Your task to perform on an android device: Open Youtube and go to the subscriptions tab Image 0: 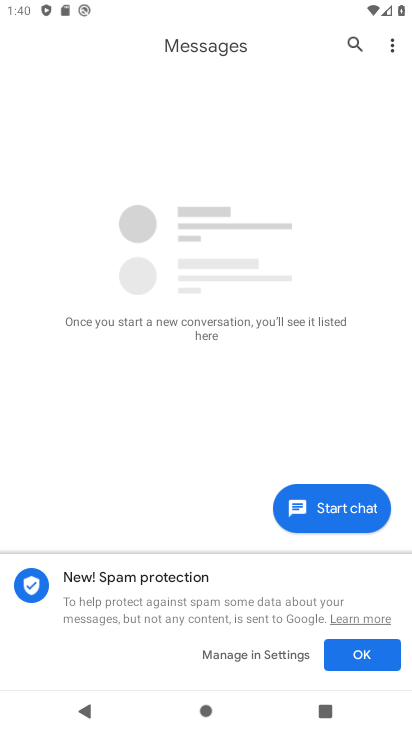
Step 0: press home button
Your task to perform on an android device: Open Youtube and go to the subscriptions tab Image 1: 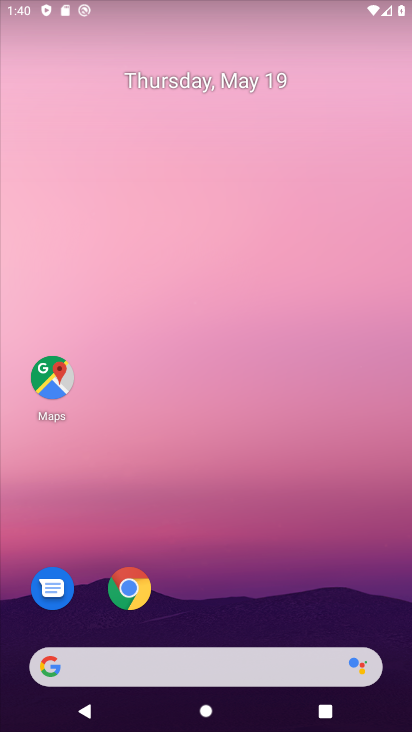
Step 1: drag from (222, 557) to (221, 87)
Your task to perform on an android device: Open Youtube and go to the subscriptions tab Image 2: 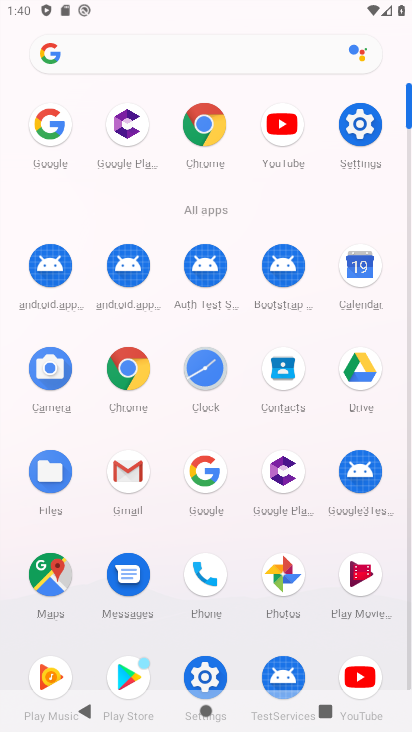
Step 2: click (289, 125)
Your task to perform on an android device: Open Youtube and go to the subscriptions tab Image 3: 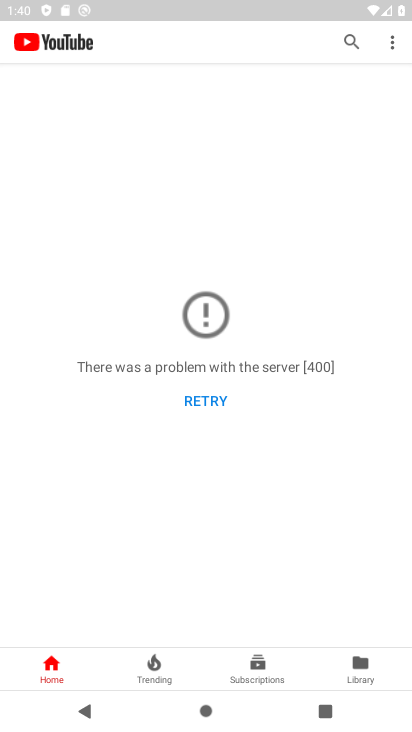
Step 3: click (264, 671)
Your task to perform on an android device: Open Youtube and go to the subscriptions tab Image 4: 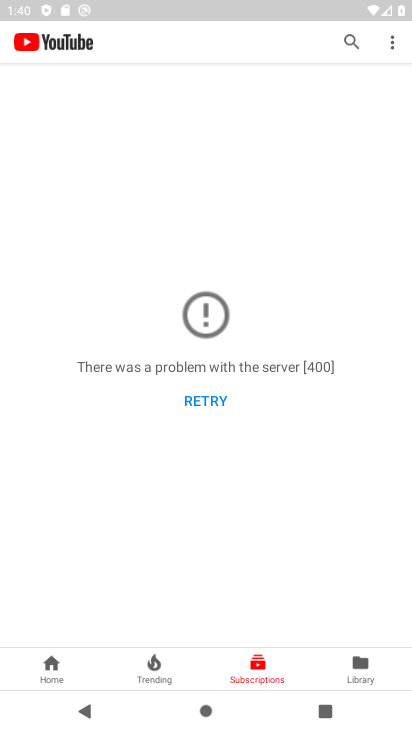
Step 4: task complete